Your task to perform on an android device: delete browsing data in the chrome app Image 0: 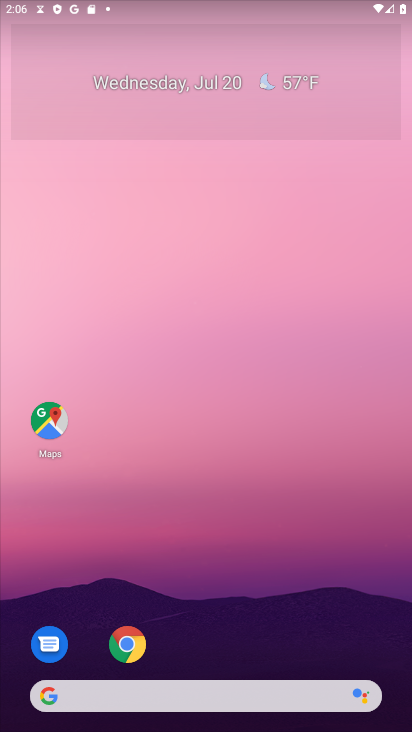
Step 0: drag from (204, 607) to (159, 85)
Your task to perform on an android device: delete browsing data in the chrome app Image 1: 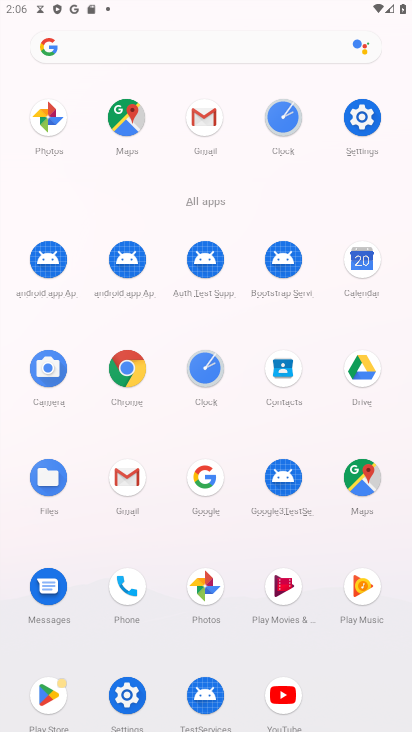
Step 1: click (128, 368)
Your task to perform on an android device: delete browsing data in the chrome app Image 2: 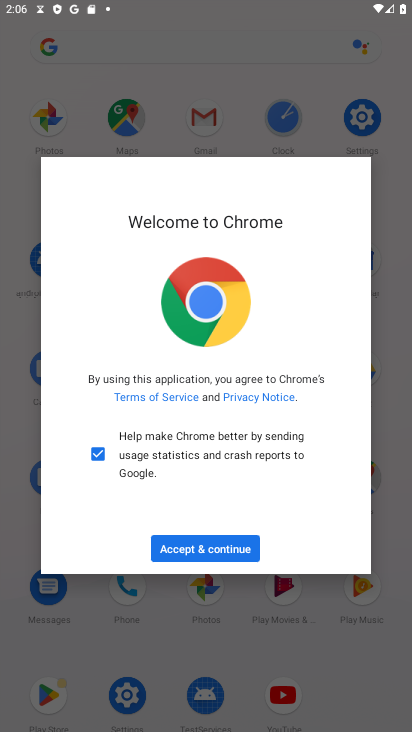
Step 2: click (206, 547)
Your task to perform on an android device: delete browsing data in the chrome app Image 3: 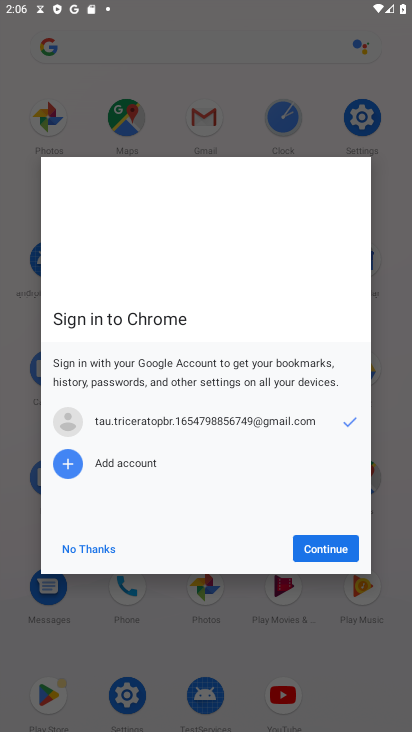
Step 3: click (322, 549)
Your task to perform on an android device: delete browsing data in the chrome app Image 4: 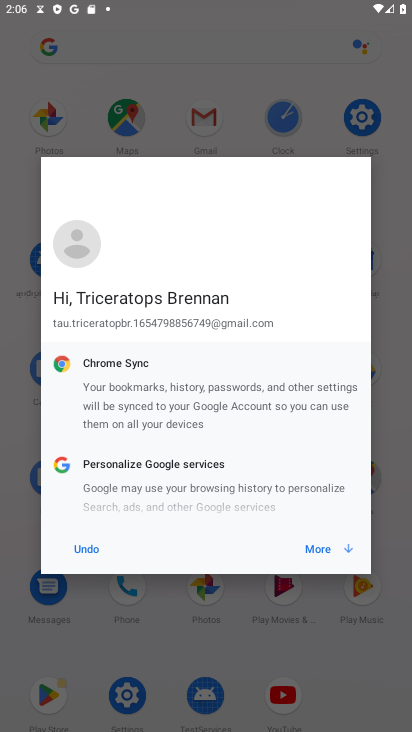
Step 4: click (320, 545)
Your task to perform on an android device: delete browsing data in the chrome app Image 5: 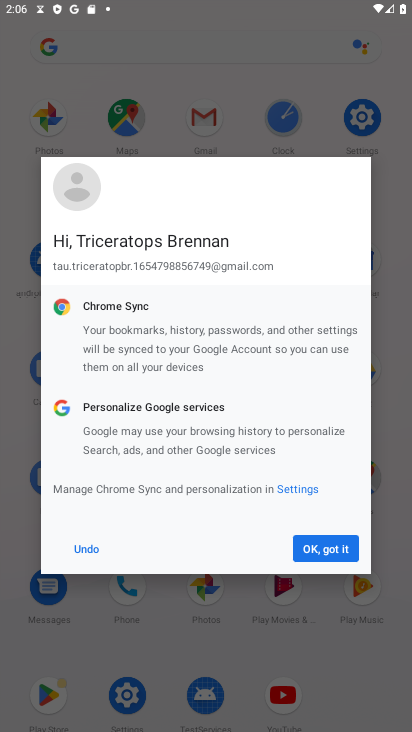
Step 5: click (320, 545)
Your task to perform on an android device: delete browsing data in the chrome app Image 6: 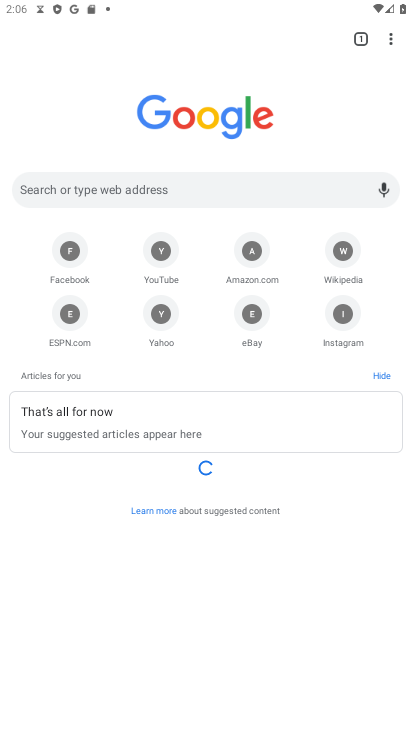
Step 6: drag from (393, 37) to (257, 329)
Your task to perform on an android device: delete browsing data in the chrome app Image 7: 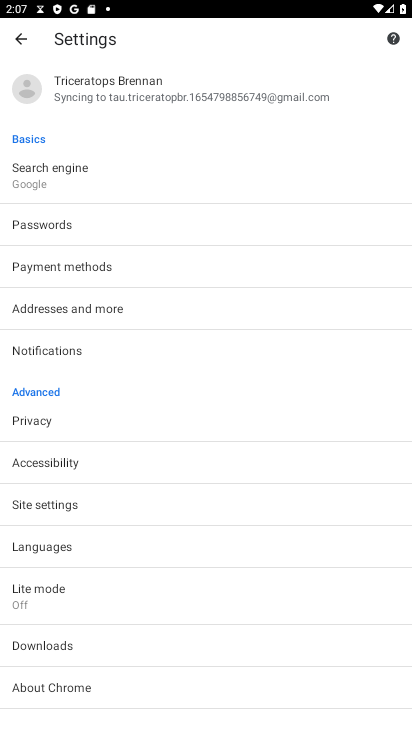
Step 7: click (21, 423)
Your task to perform on an android device: delete browsing data in the chrome app Image 8: 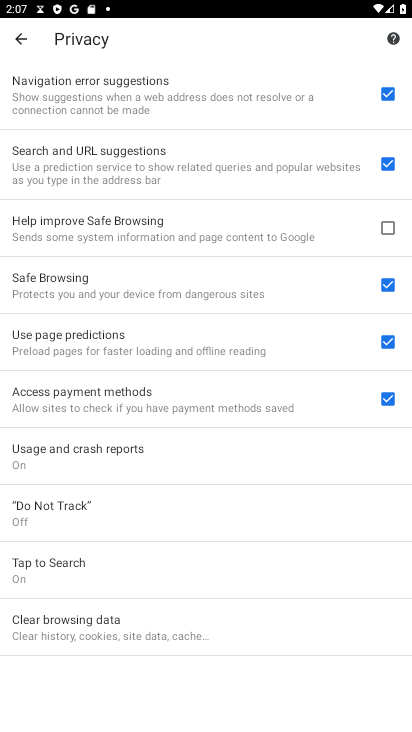
Step 8: click (54, 631)
Your task to perform on an android device: delete browsing data in the chrome app Image 9: 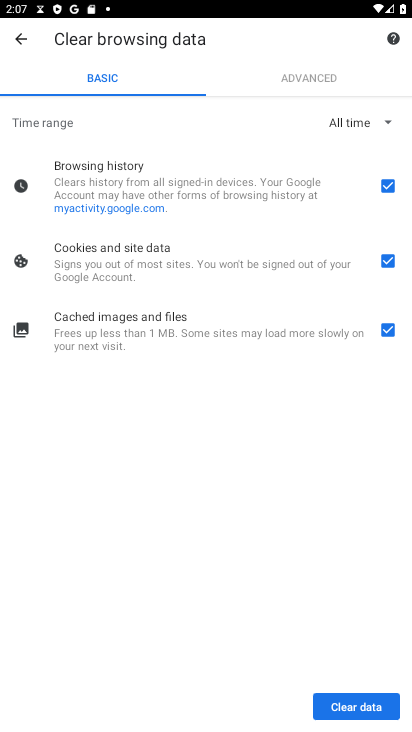
Step 9: click (382, 262)
Your task to perform on an android device: delete browsing data in the chrome app Image 10: 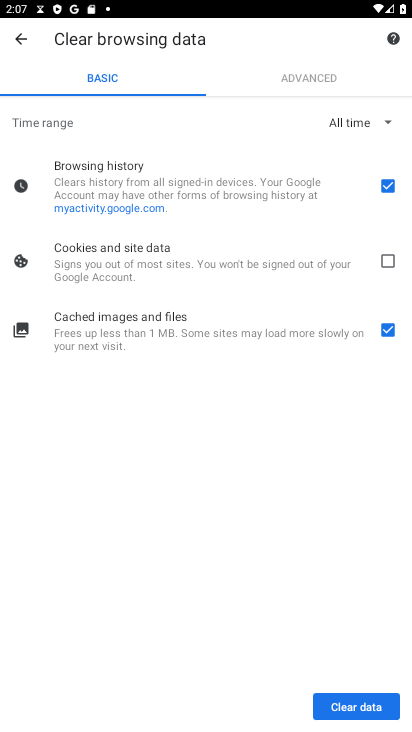
Step 10: click (382, 332)
Your task to perform on an android device: delete browsing data in the chrome app Image 11: 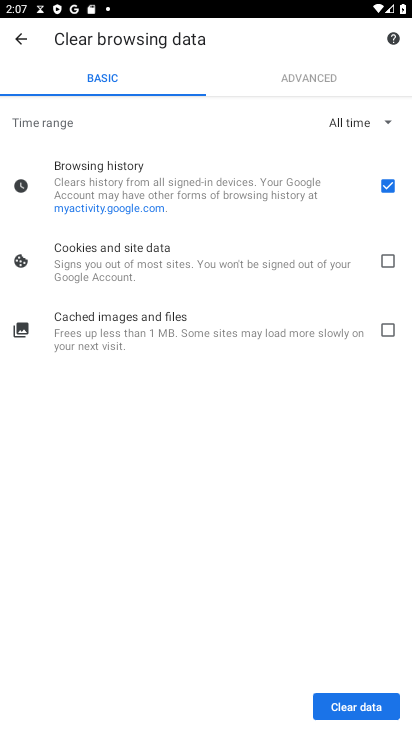
Step 11: click (347, 709)
Your task to perform on an android device: delete browsing data in the chrome app Image 12: 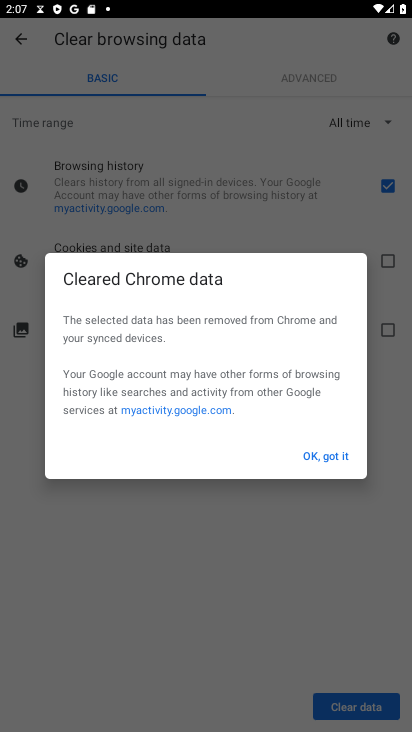
Step 12: click (334, 462)
Your task to perform on an android device: delete browsing data in the chrome app Image 13: 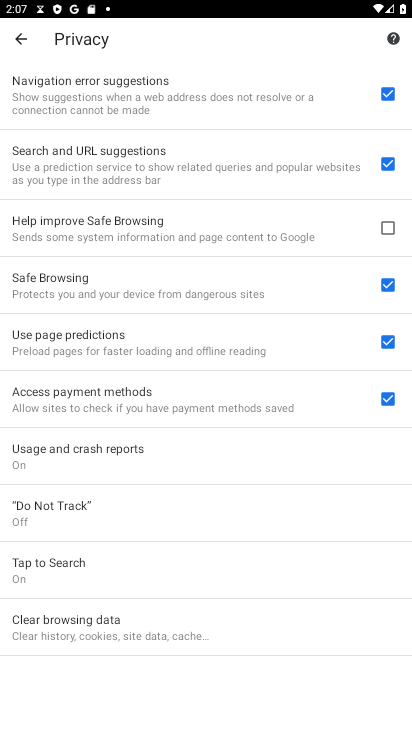
Step 13: task complete